Your task to perform on an android device: Search for dell xps on amazon.com, select the first entry, and add it to the cart. Image 0: 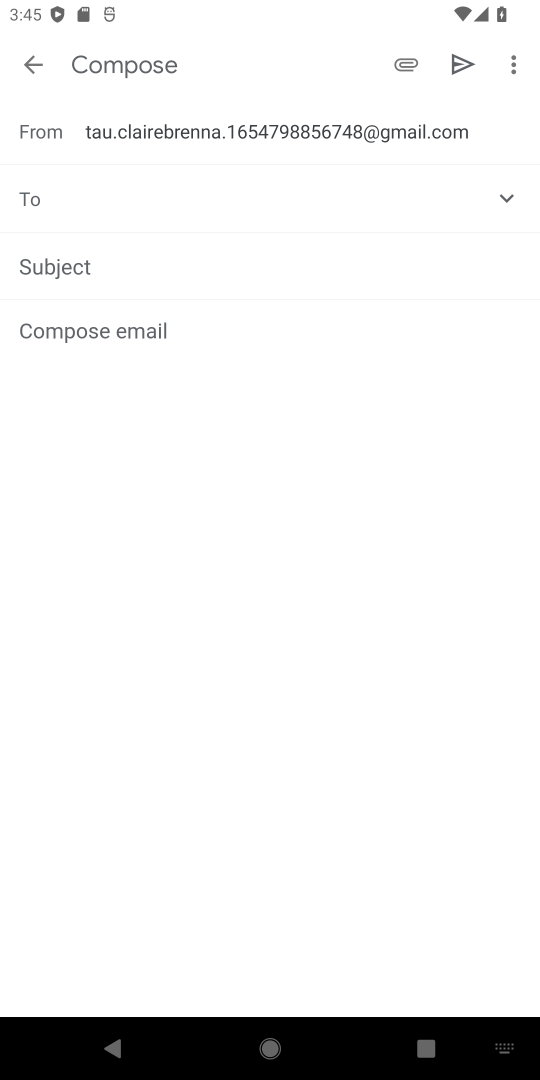
Step 0: press home button
Your task to perform on an android device: Search for dell xps on amazon.com, select the first entry, and add it to the cart. Image 1: 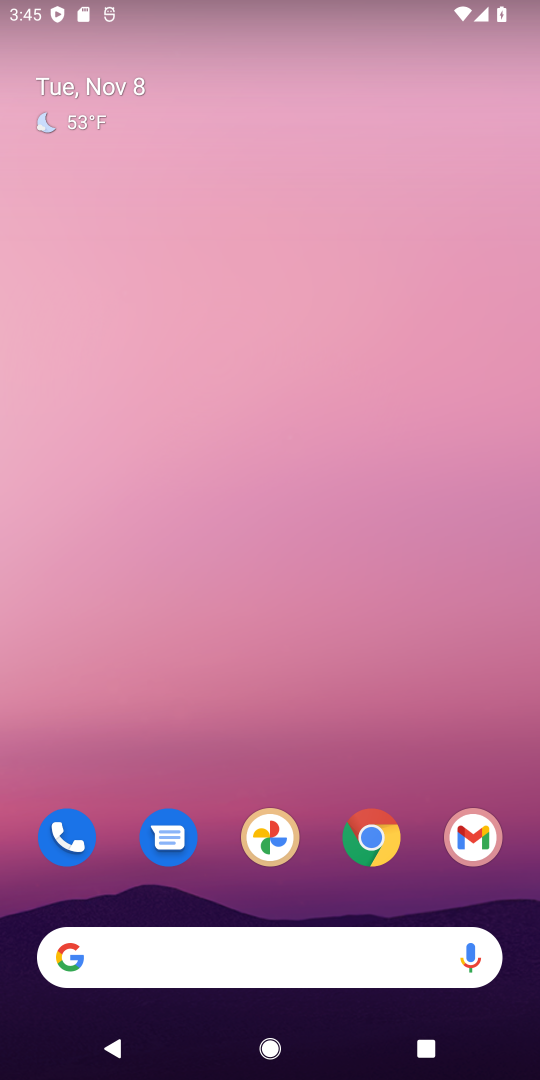
Step 1: click (349, 850)
Your task to perform on an android device: Search for dell xps on amazon.com, select the first entry, and add it to the cart. Image 2: 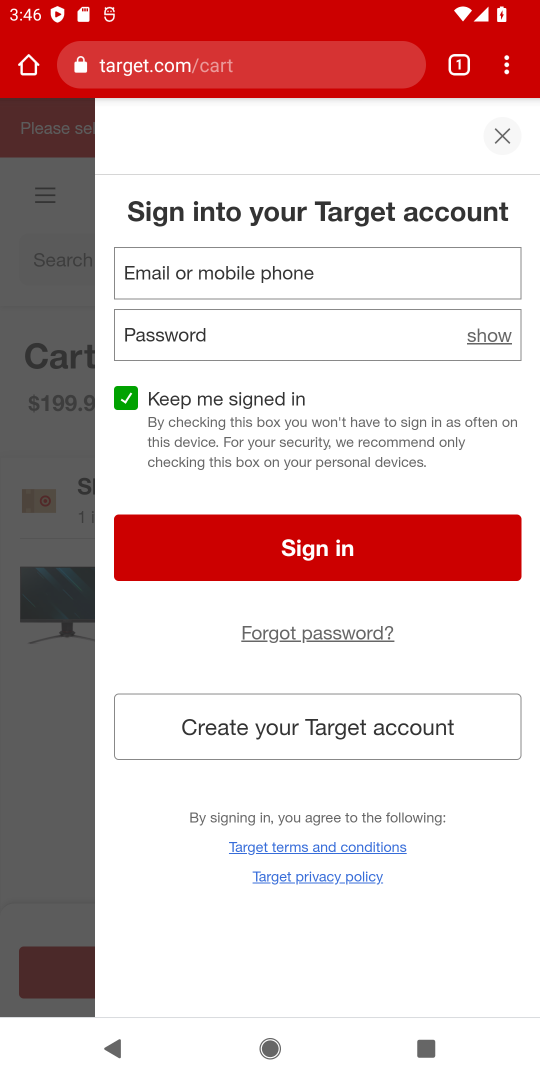
Step 2: click (503, 135)
Your task to perform on an android device: Search for dell xps on amazon.com, select the first entry, and add it to the cart. Image 3: 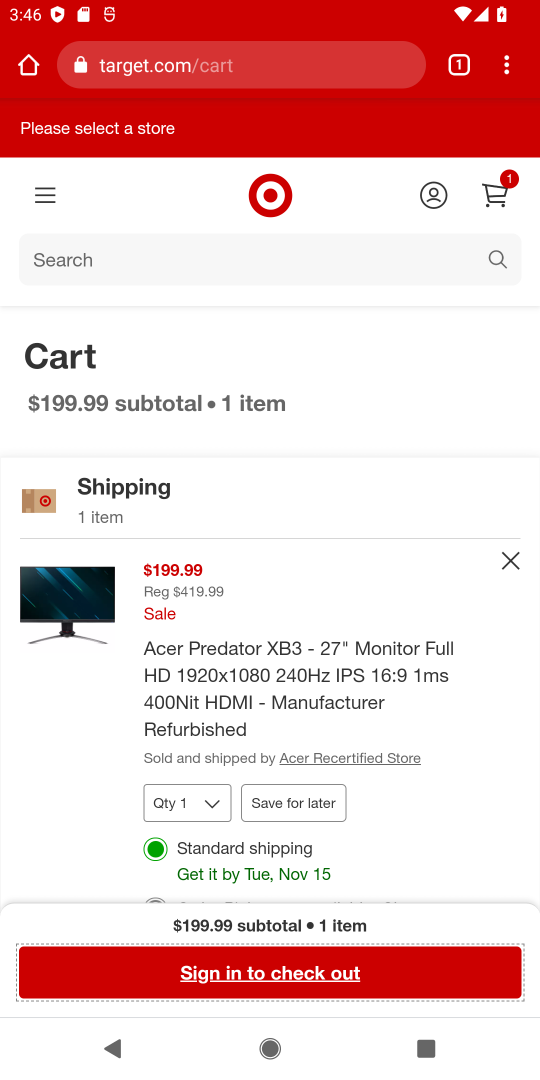
Step 3: click (123, 71)
Your task to perform on an android device: Search for dell xps on amazon.com, select the first entry, and add it to the cart. Image 4: 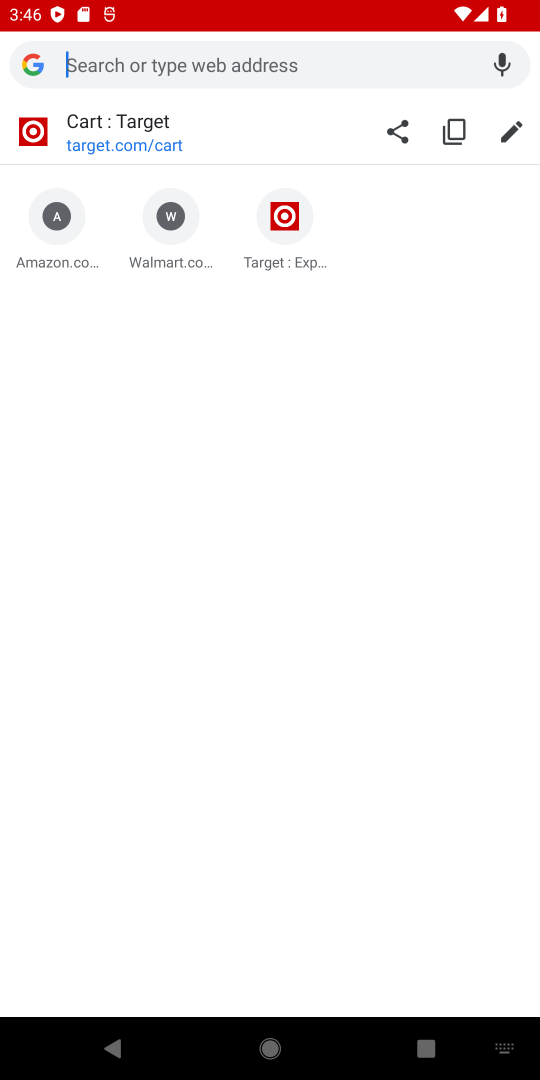
Step 4: type "amazon"
Your task to perform on an android device: Search for dell xps on amazon.com, select the first entry, and add it to the cart. Image 5: 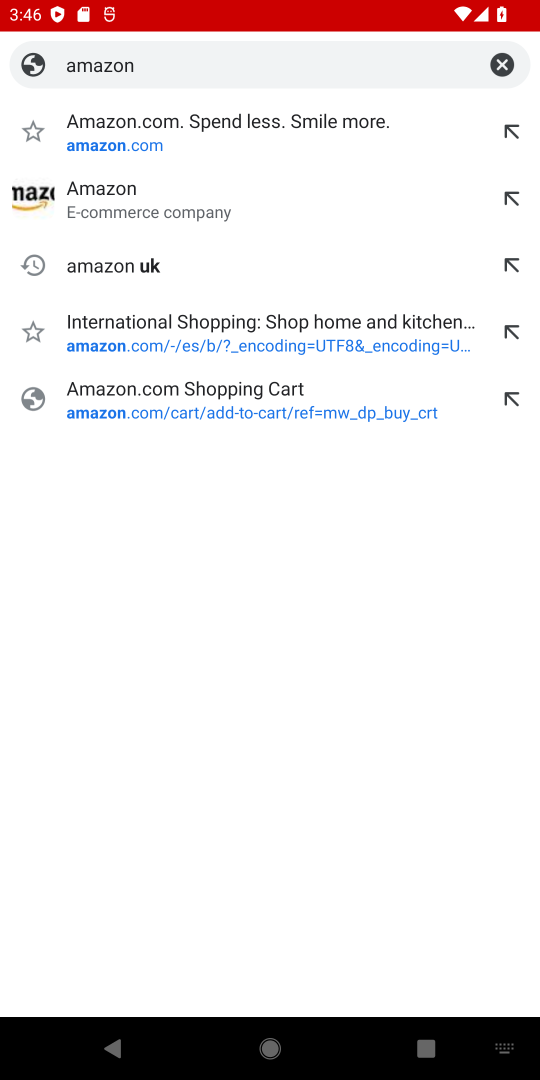
Step 5: click (134, 201)
Your task to perform on an android device: Search for dell xps on amazon.com, select the first entry, and add it to the cart. Image 6: 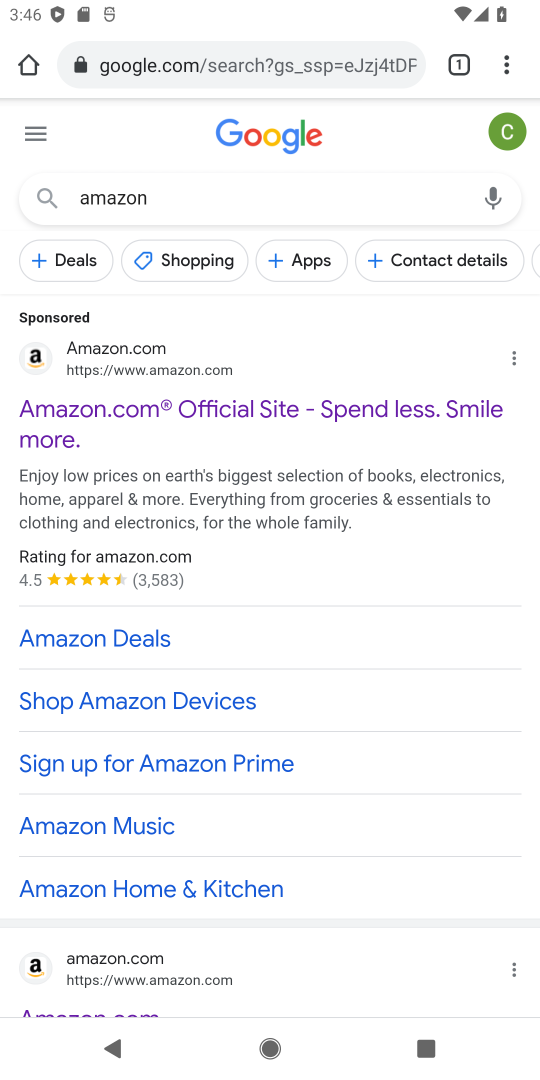
Step 6: click (109, 416)
Your task to perform on an android device: Search for dell xps on amazon.com, select the first entry, and add it to the cart. Image 7: 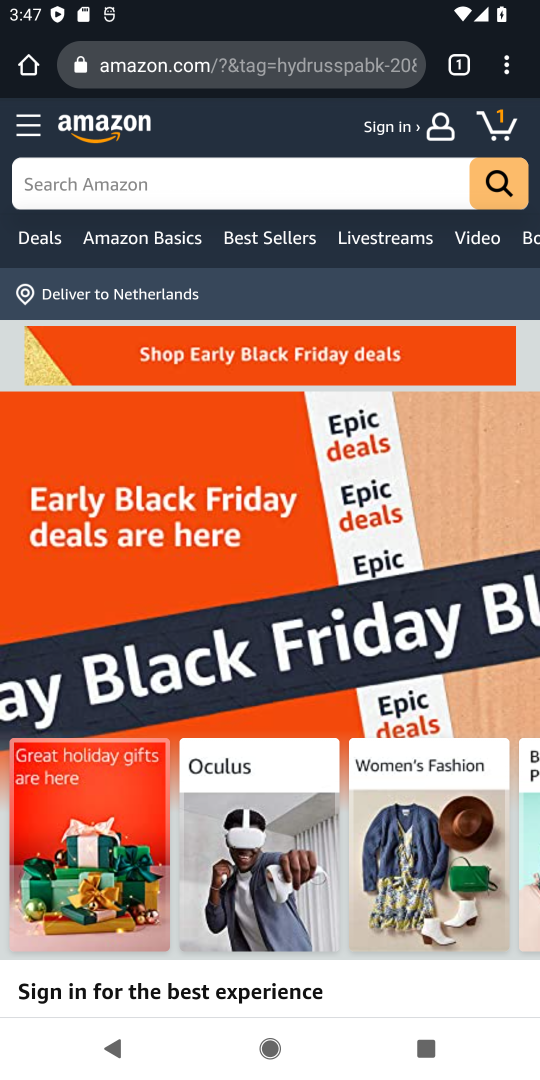
Step 7: click (310, 198)
Your task to perform on an android device: Search for dell xps on amazon.com, select the first entry, and add it to the cart. Image 8: 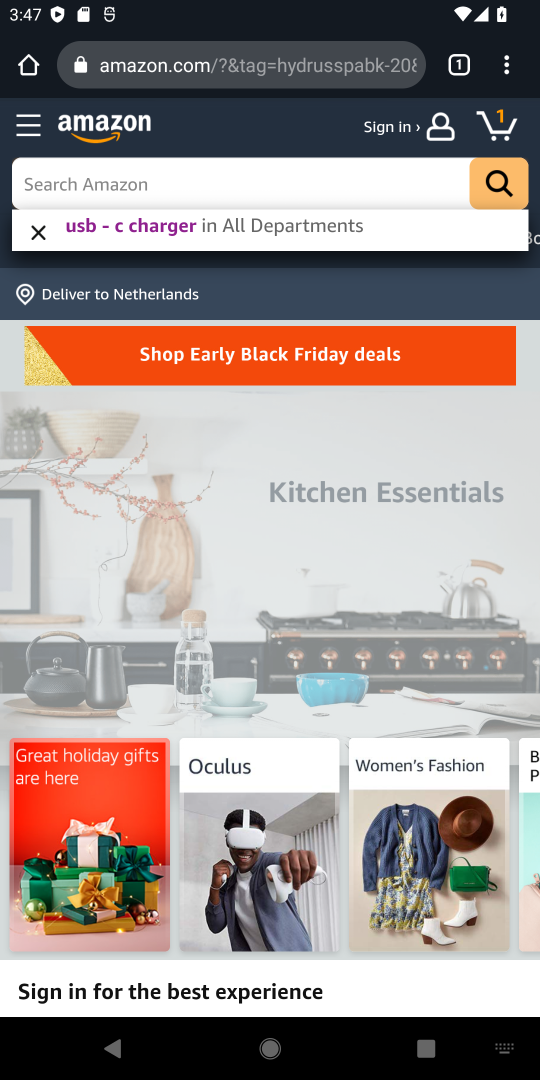
Step 8: type "dell xps "
Your task to perform on an android device: Search for dell xps on amazon.com, select the first entry, and add it to the cart. Image 9: 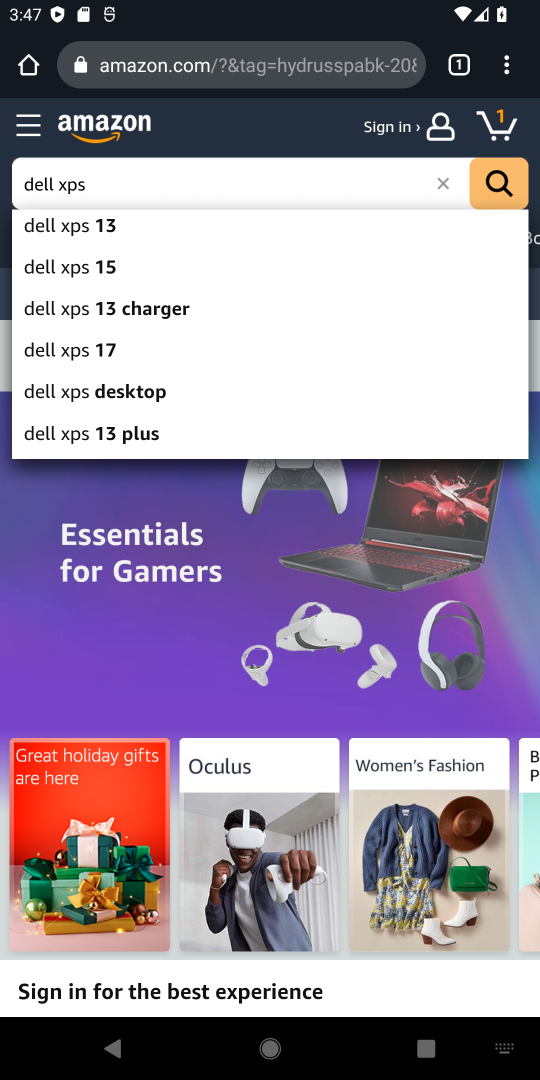
Step 9: click (87, 232)
Your task to perform on an android device: Search for dell xps on amazon.com, select the first entry, and add it to the cart. Image 10: 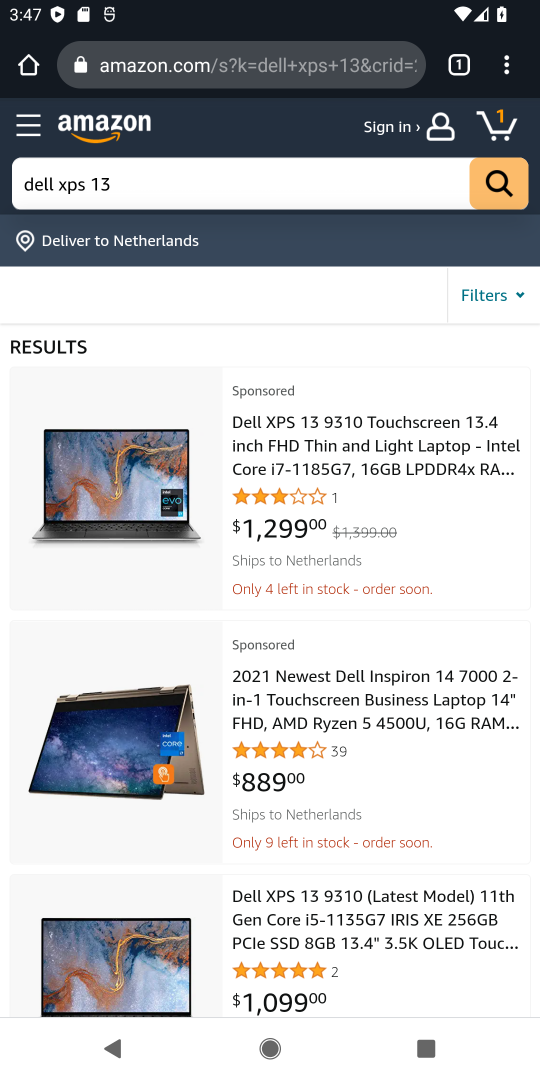
Step 10: click (286, 425)
Your task to perform on an android device: Search for dell xps on amazon.com, select the first entry, and add it to the cart. Image 11: 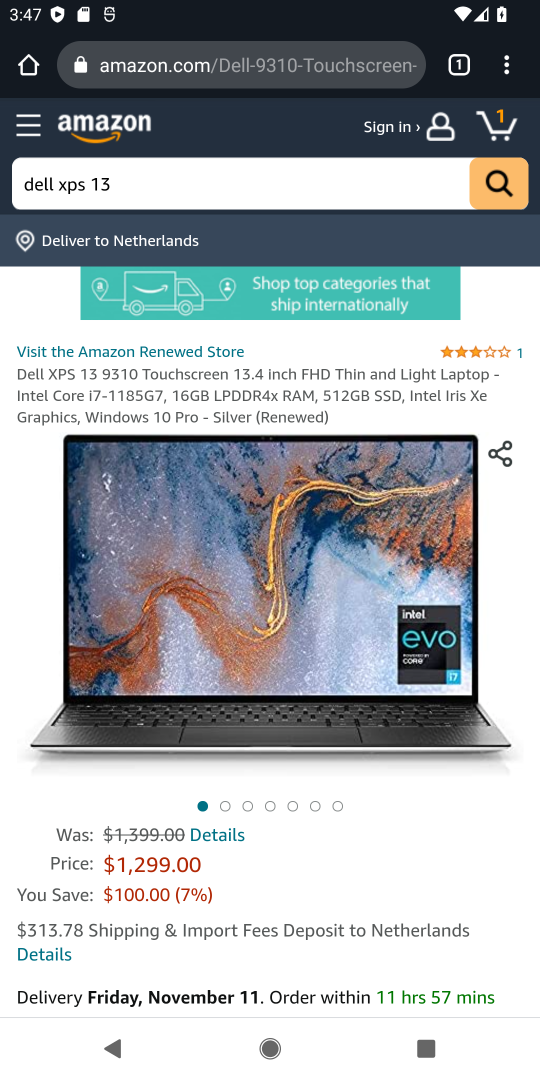
Step 11: drag from (347, 830) to (342, 222)
Your task to perform on an android device: Search for dell xps on amazon.com, select the first entry, and add it to the cart. Image 12: 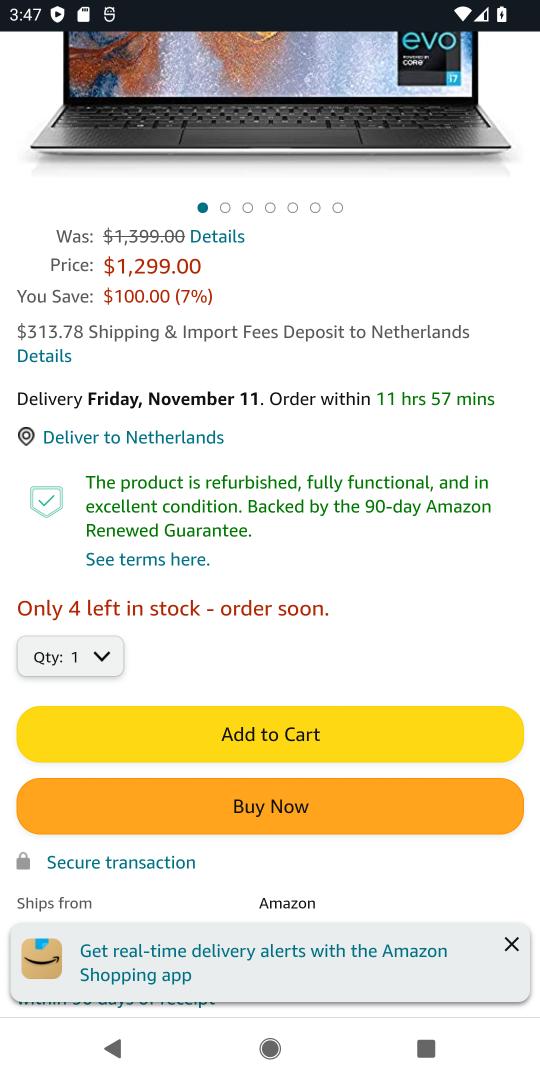
Step 12: click (298, 724)
Your task to perform on an android device: Search for dell xps on amazon.com, select the first entry, and add it to the cart. Image 13: 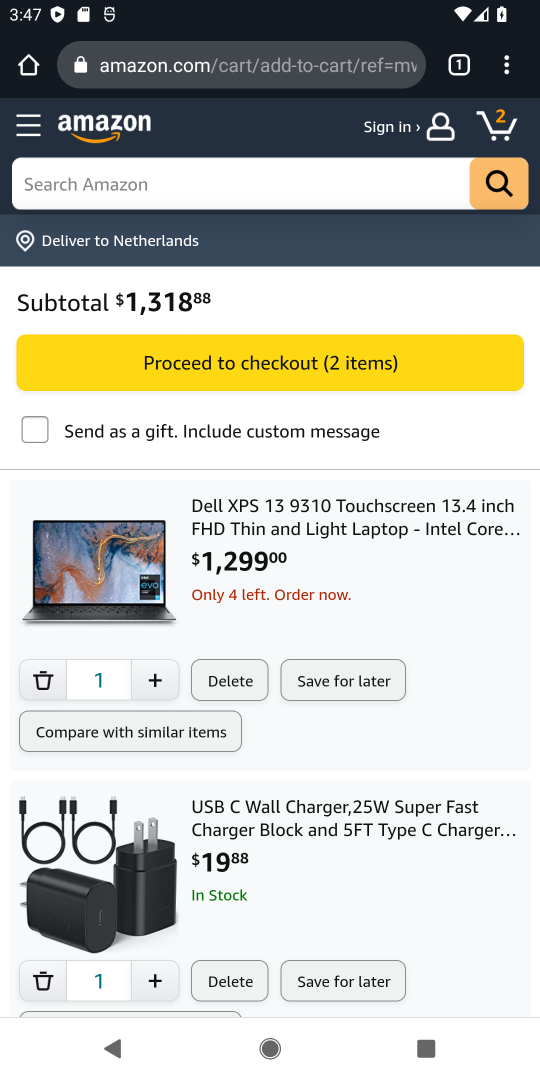
Step 13: click (510, 123)
Your task to perform on an android device: Search for dell xps on amazon.com, select the first entry, and add it to the cart. Image 14: 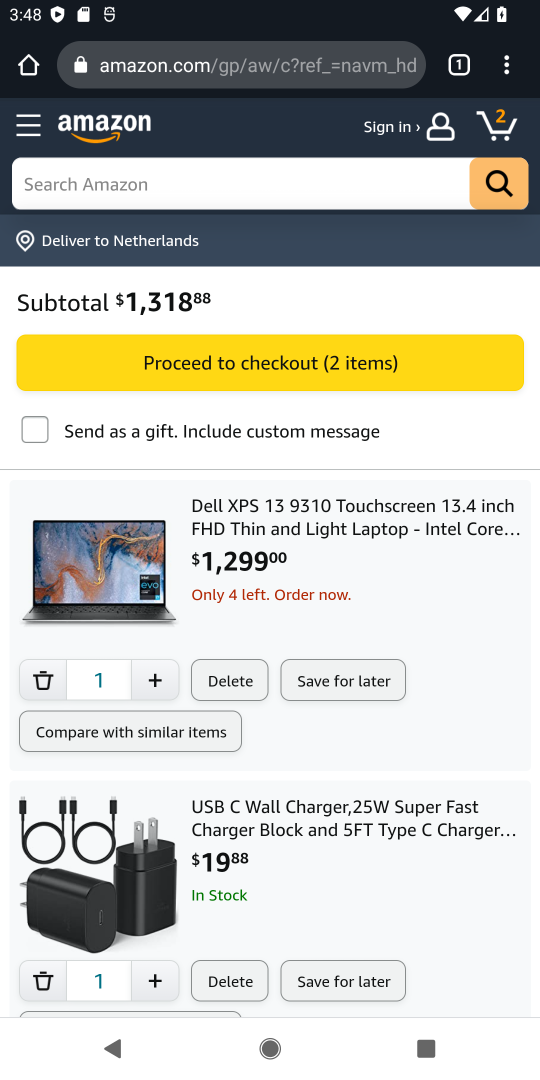
Step 14: click (488, 127)
Your task to perform on an android device: Search for dell xps on amazon.com, select the first entry, and add it to the cart. Image 15: 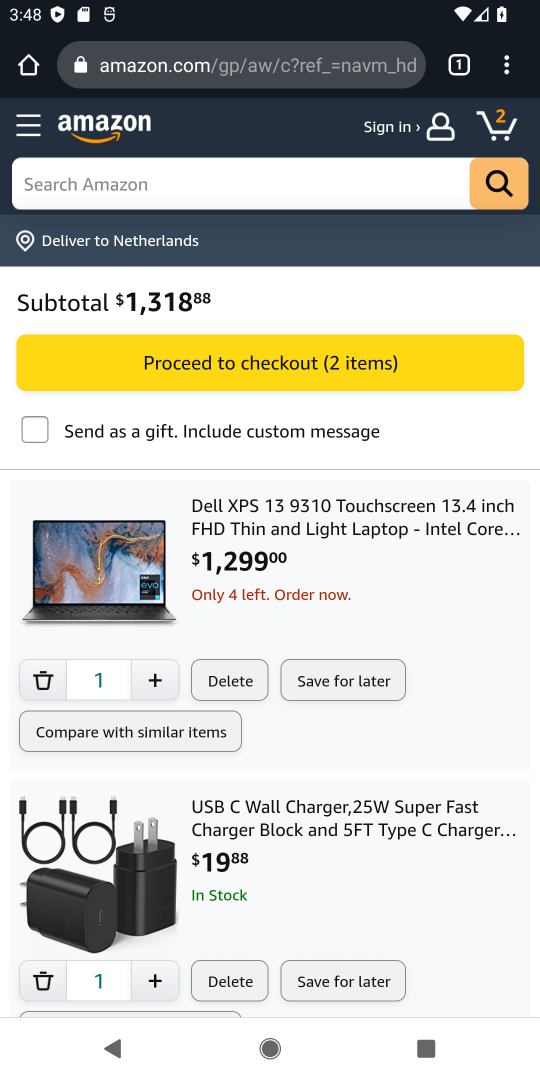
Step 15: click (494, 127)
Your task to perform on an android device: Search for dell xps on amazon.com, select the first entry, and add it to the cart. Image 16: 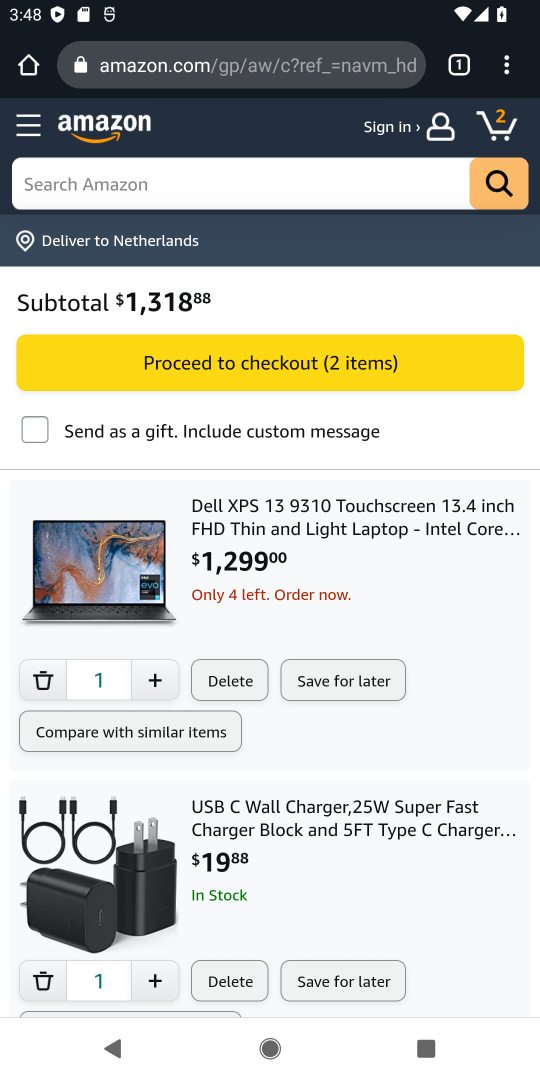
Step 16: click (282, 501)
Your task to perform on an android device: Search for dell xps on amazon.com, select the first entry, and add it to the cart. Image 17: 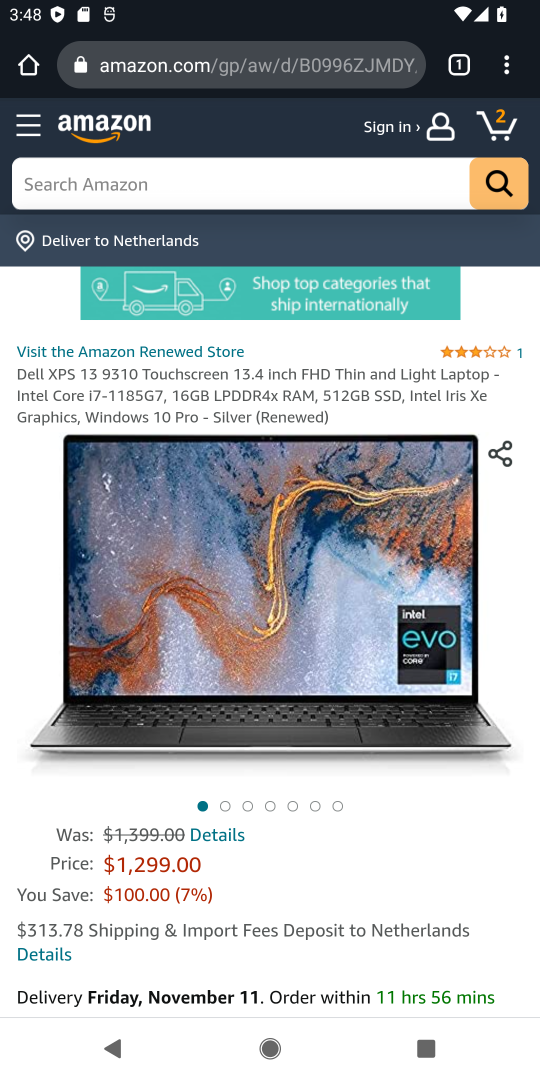
Step 17: click (497, 121)
Your task to perform on an android device: Search for dell xps on amazon.com, select the first entry, and add it to the cart. Image 18: 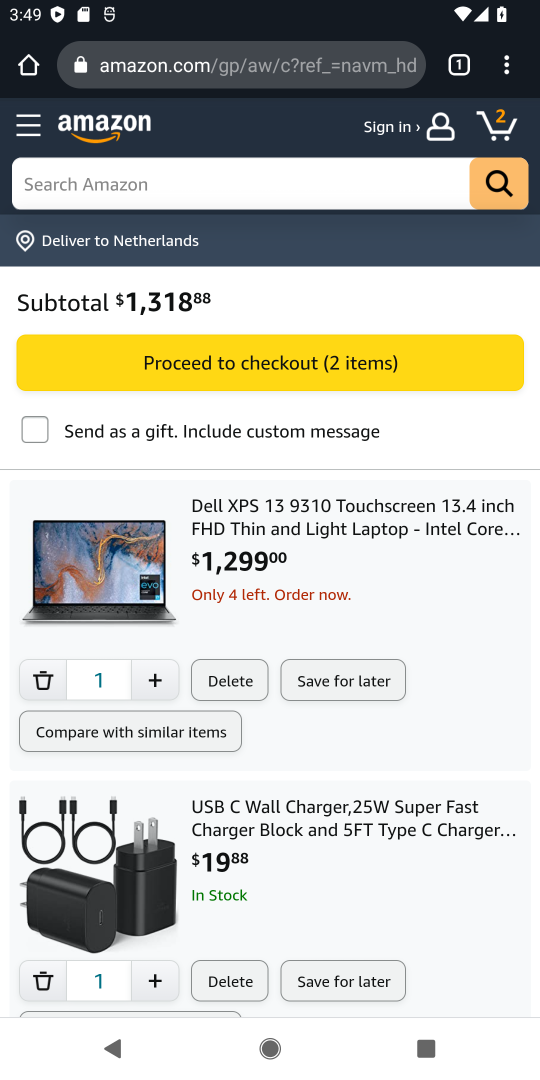
Step 18: task complete